Your task to perform on an android device: Open display settings Image 0: 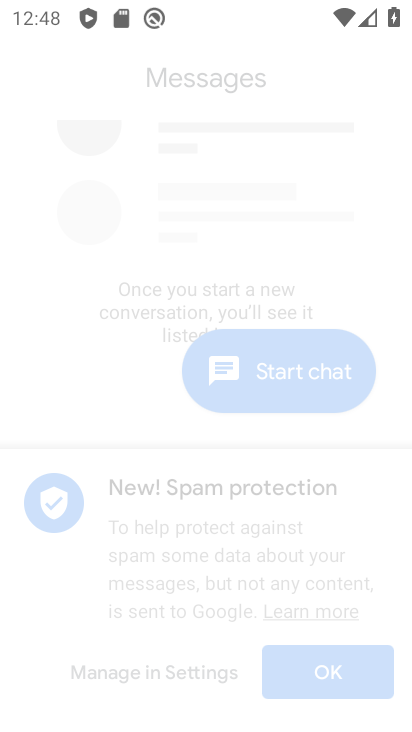
Step 0: drag from (229, 712) to (219, 69)
Your task to perform on an android device: Open display settings Image 1: 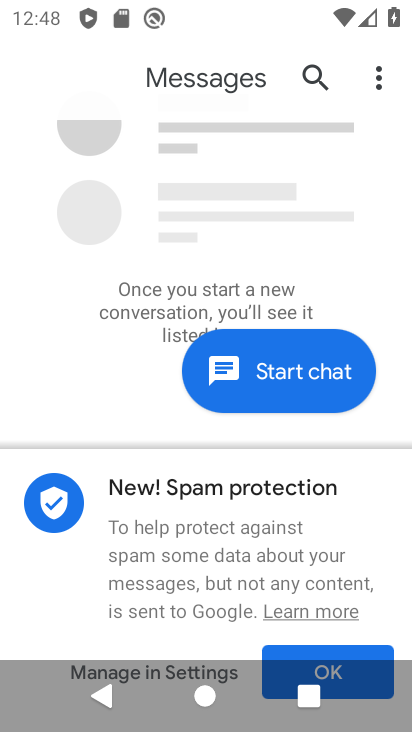
Step 1: press home button
Your task to perform on an android device: Open display settings Image 2: 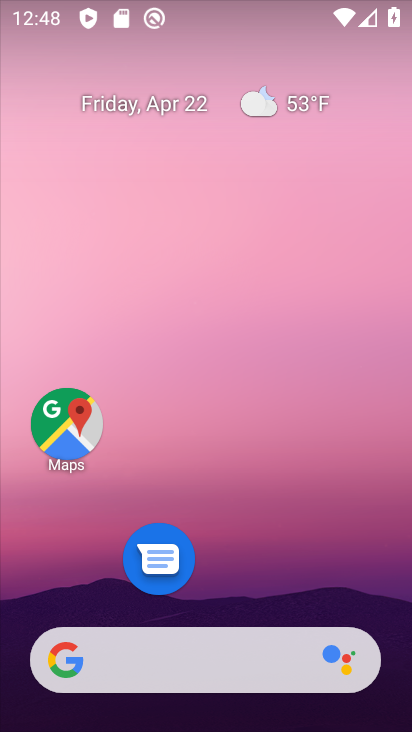
Step 2: drag from (226, 723) to (226, 151)
Your task to perform on an android device: Open display settings Image 3: 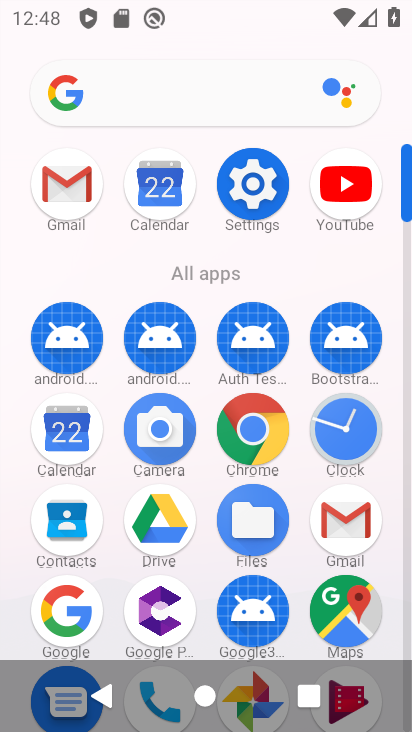
Step 3: click (248, 194)
Your task to perform on an android device: Open display settings Image 4: 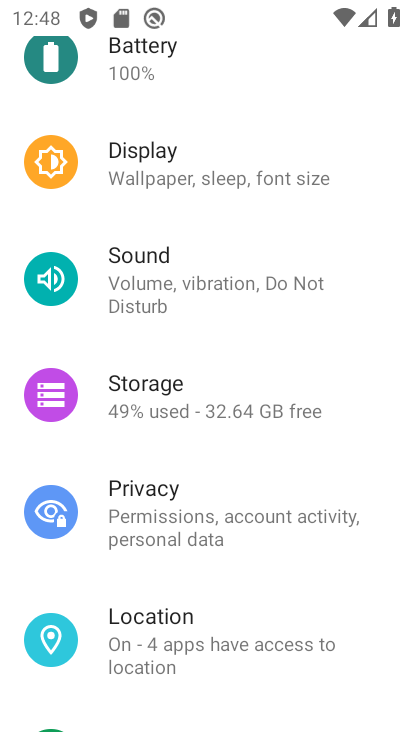
Step 4: click (151, 158)
Your task to perform on an android device: Open display settings Image 5: 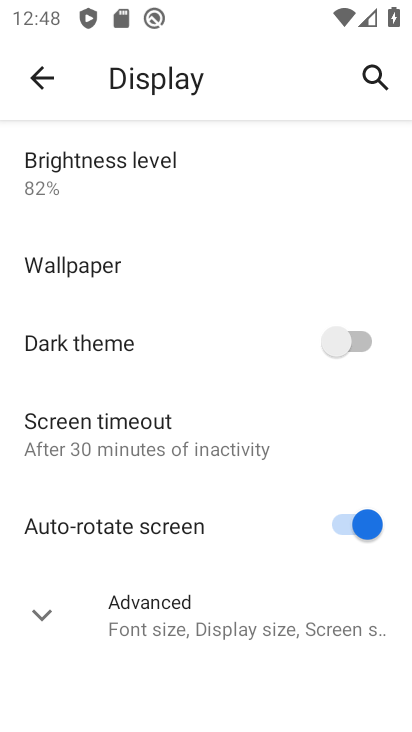
Step 5: task complete